Your task to perform on an android device: turn on showing notifications on the lock screen Image 0: 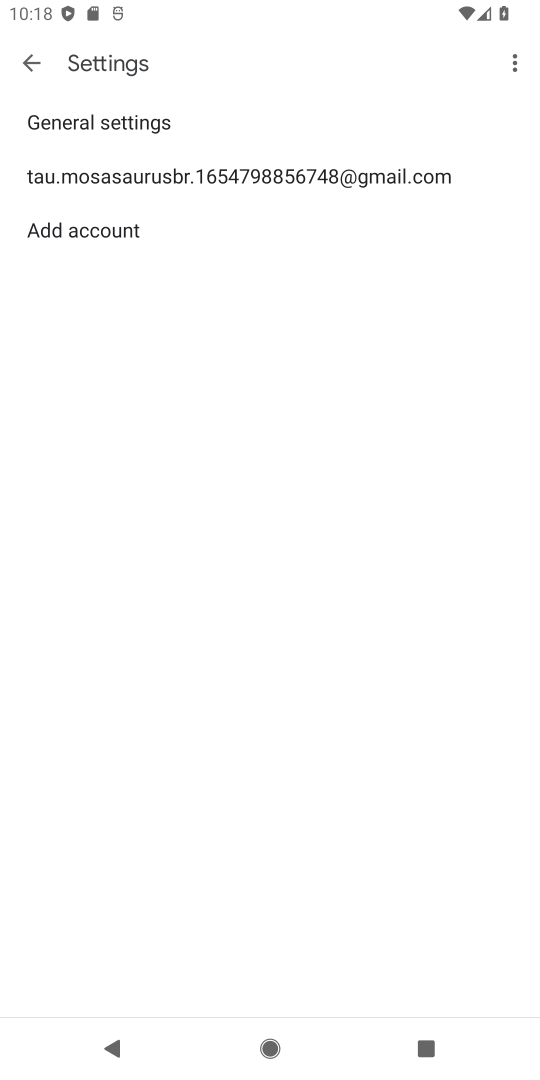
Step 0: press home button
Your task to perform on an android device: turn on showing notifications on the lock screen Image 1: 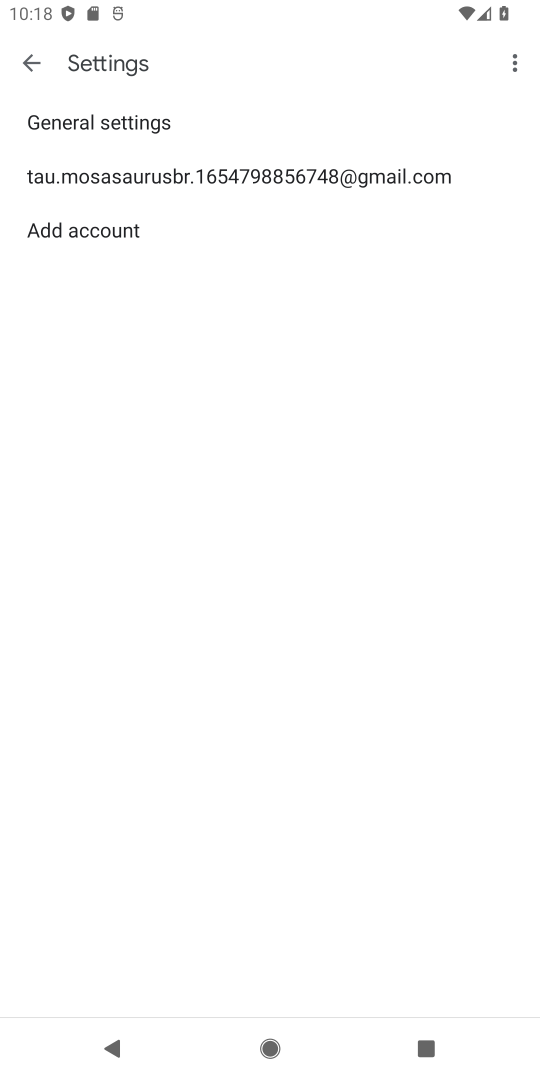
Step 1: press home button
Your task to perform on an android device: turn on showing notifications on the lock screen Image 2: 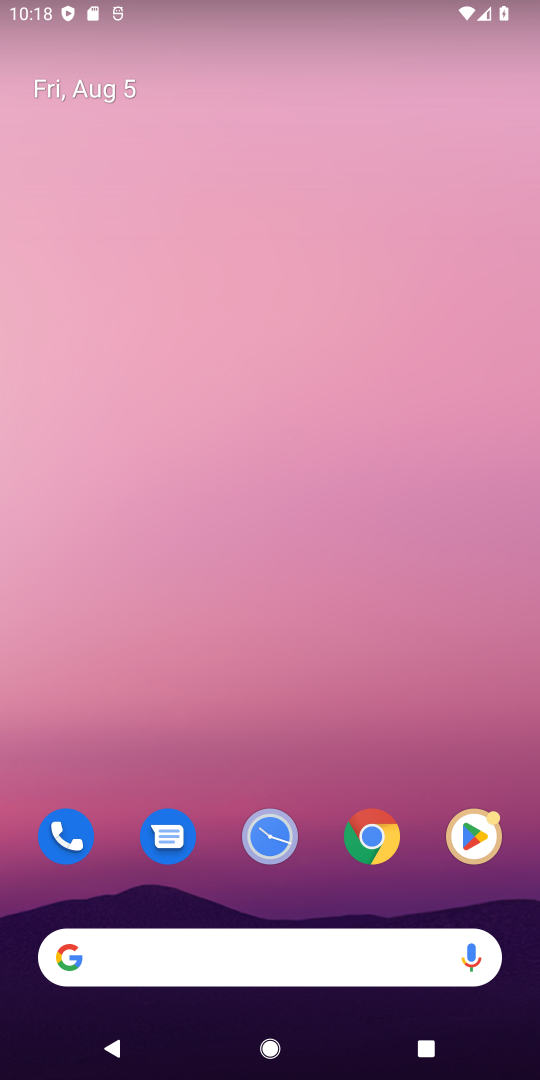
Step 2: drag from (360, 737) to (354, 204)
Your task to perform on an android device: turn on showing notifications on the lock screen Image 3: 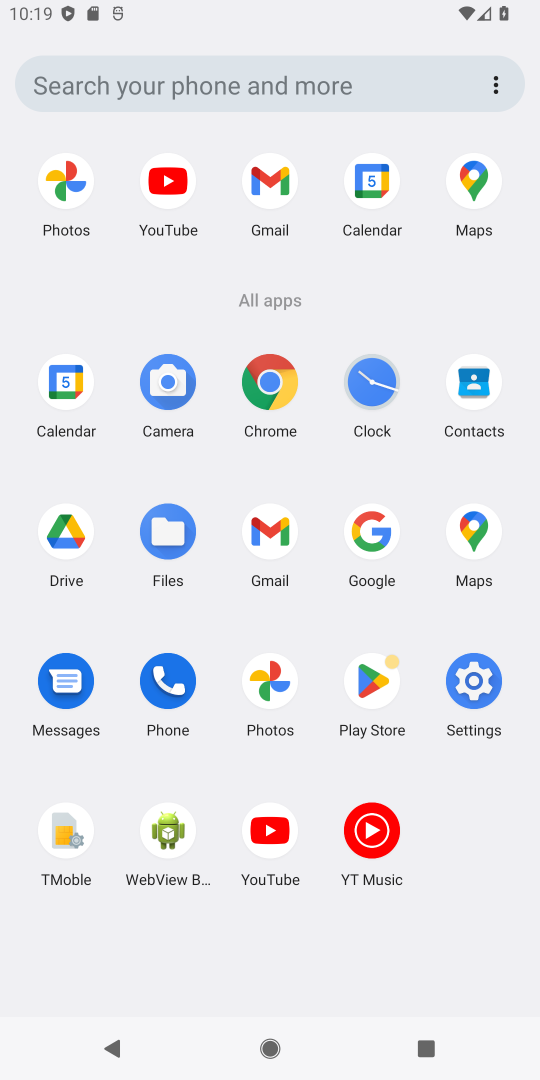
Step 3: click (476, 688)
Your task to perform on an android device: turn on showing notifications on the lock screen Image 4: 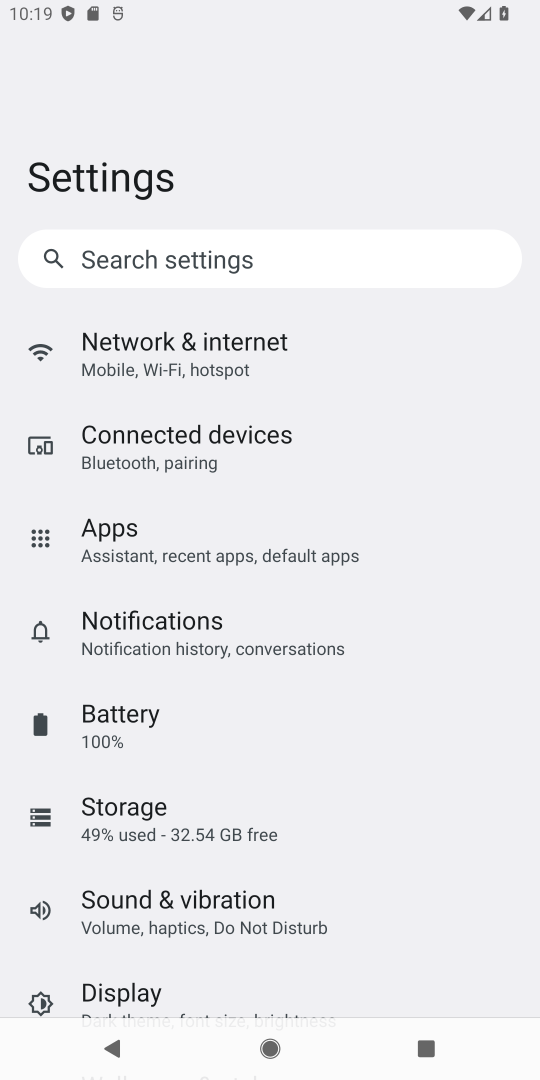
Step 4: click (224, 646)
Your task to perform on an android device: turn on showing notifications on the lock screen Image 5: 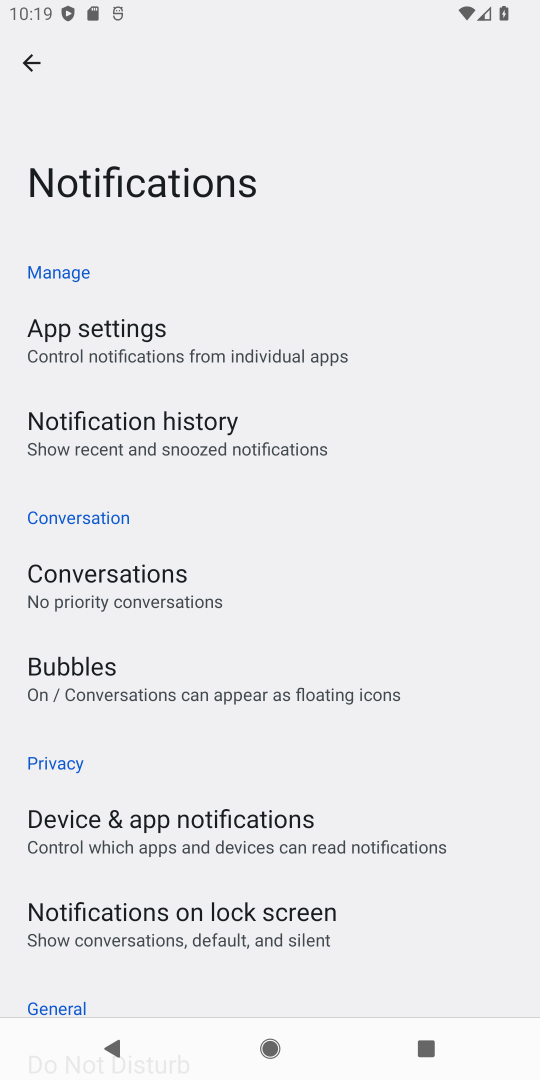
Step 5: click (173, 823)
Your task to perform on an android device: turn on showing notifications on the lock screen Image 6: 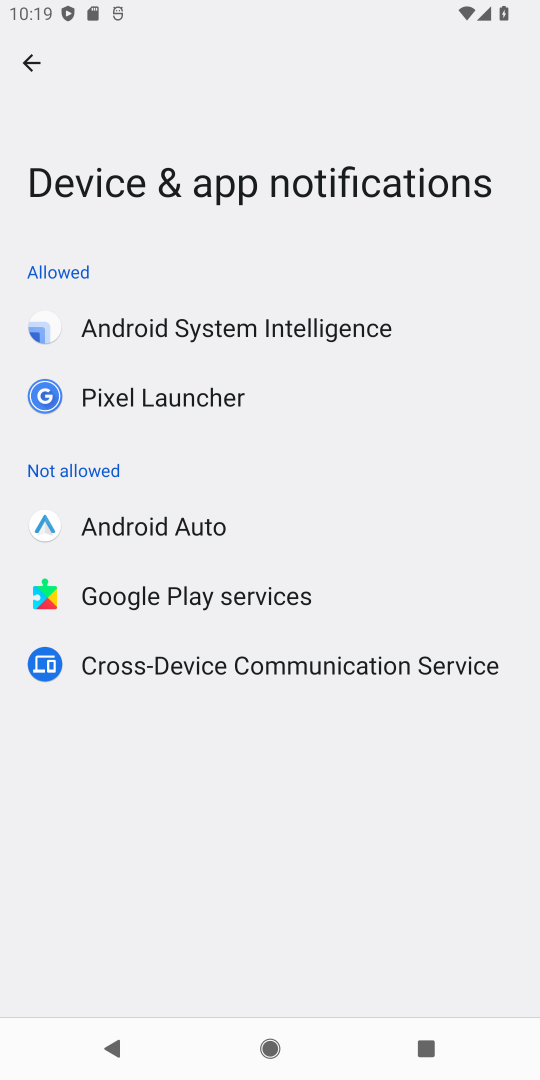
Step 6: click (25, 60)
Your task to perform on an android device: turn on showing notifications on the lock screen Image 7: 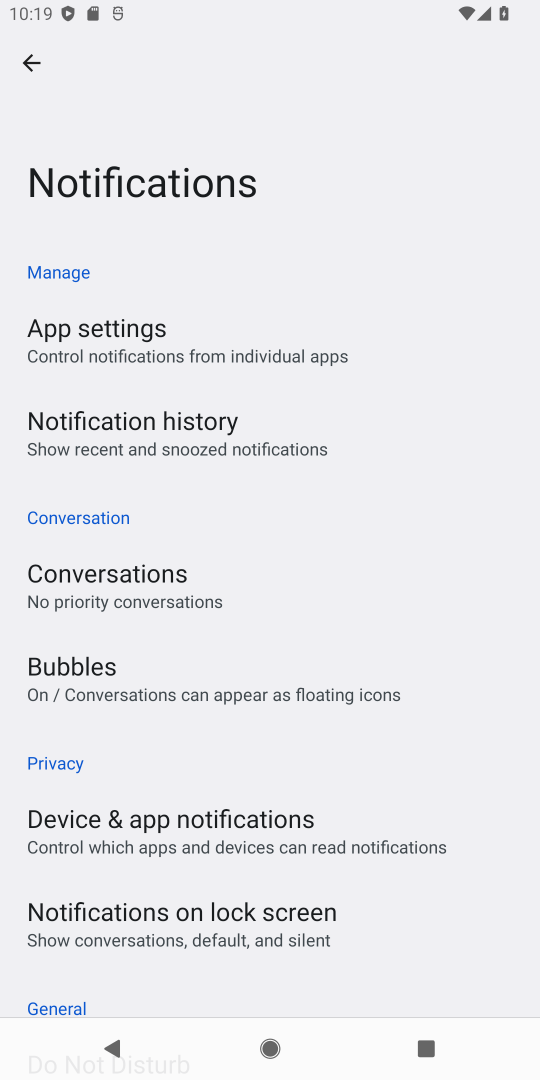
Step 7: drag from (414, 910) to (353, 302)
Your task to perform on an android device: turn on showing notifications on the lock screen Image 8: 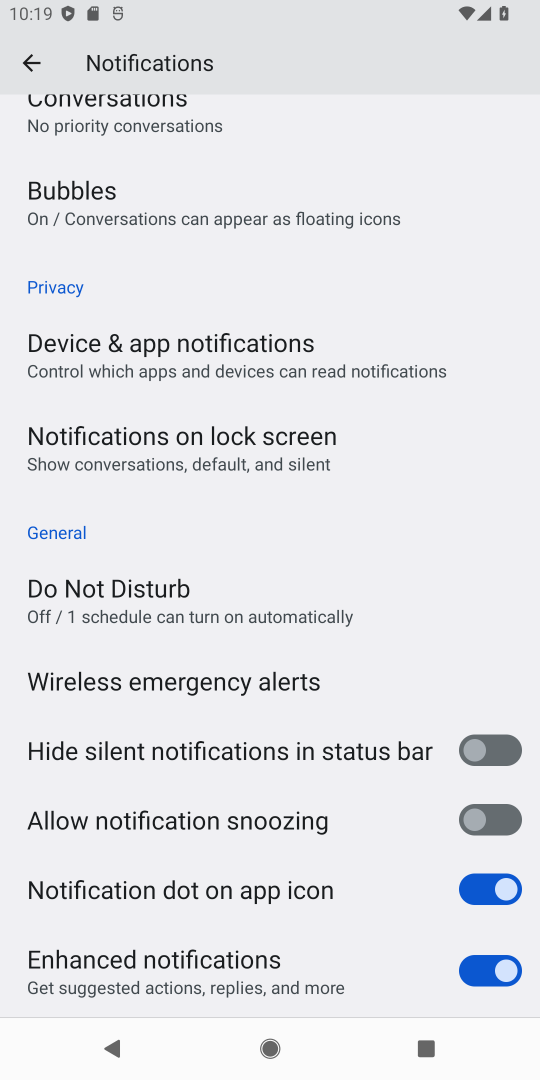
Step 8: click (247, 445)
Your task to perform on an android device: turn on showing notifications on the lock screen Image 9: 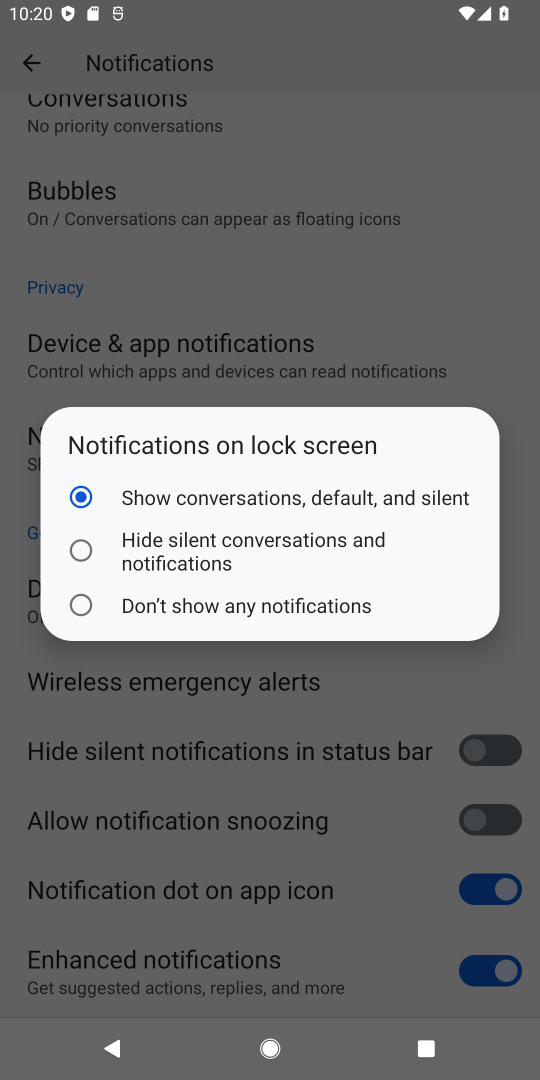
Step 9: task complete